Your task to perform on an android device: turn on showing notifications on the lock screen Image 0: 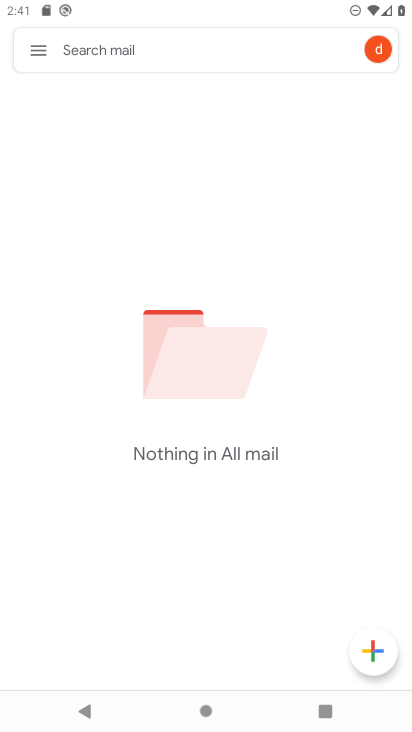
Step 0: press home button
Your task to perform on an android device: turn on showing notifications on the lock screen Image 1: 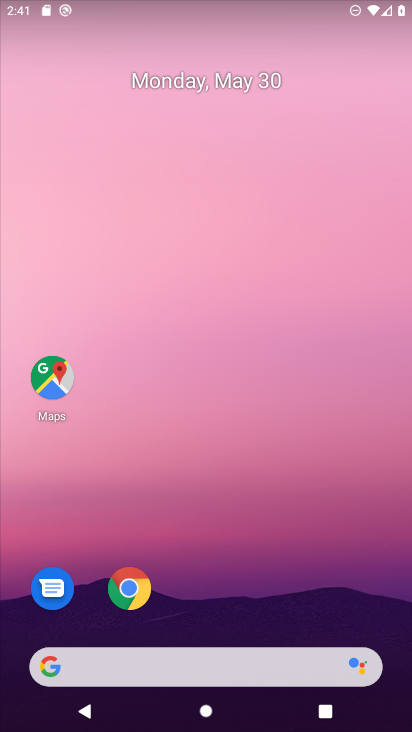
Step 1: drag from (211, 612) to (242, 244)
Your task to perform on an android device: turn on showing notifications on the lock screen Image 2: 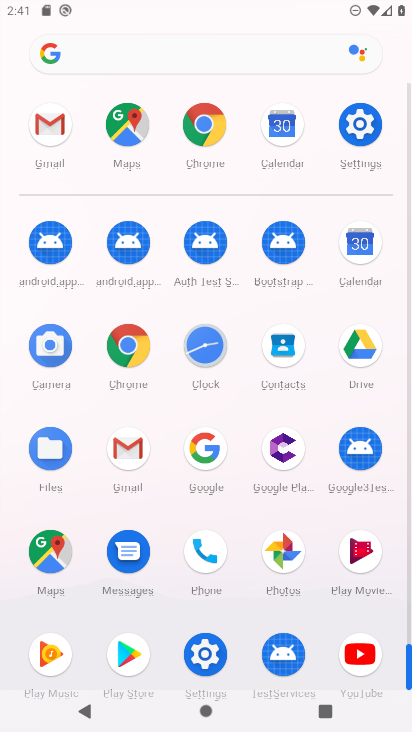
Step 2: click (360, 106)
Your task to perform on an android device: turn on showing notifications on the lock screen Image 3: 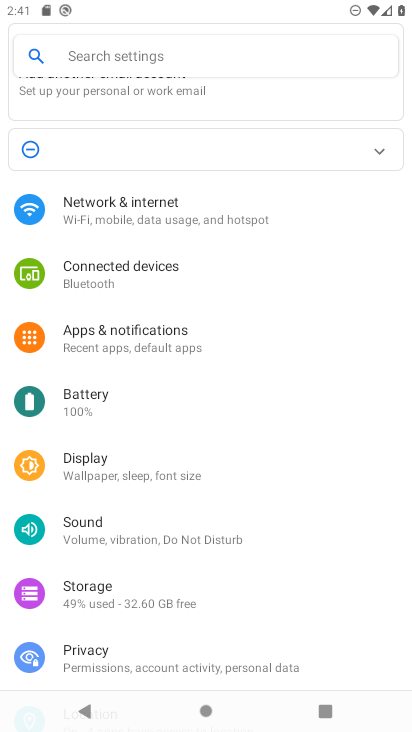
Step 3: click (89, 202)
Your task to perform on an android device: turn on showing notifications on the lock screen Image 4: 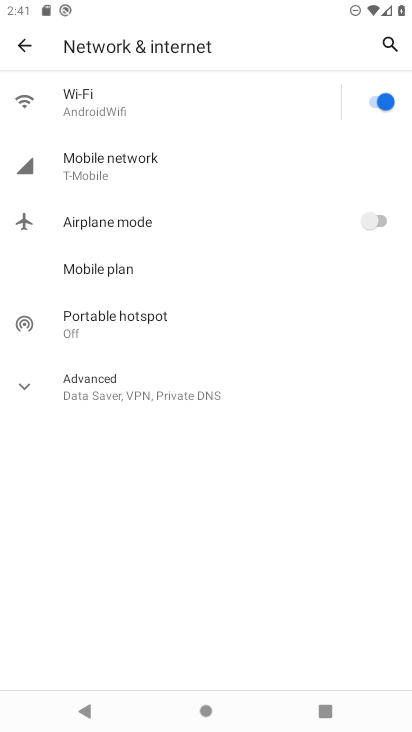
Step 4: click (39, 28)
Your task to perform on an android device: turn on showing notifications on the lock screen Image 5: 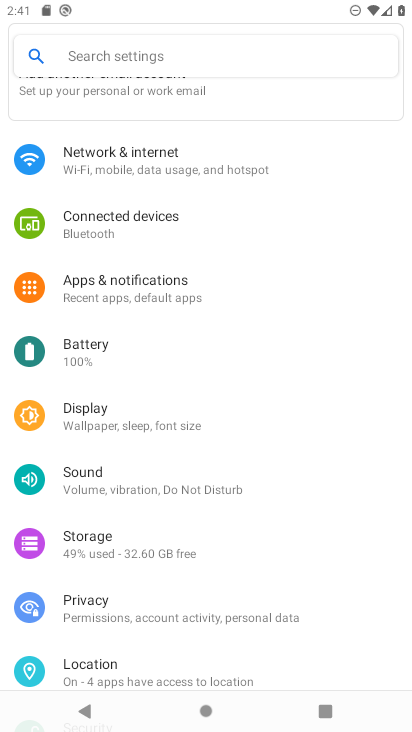
Step 5: click (140, 305)
Your task to perform on an android device: turn on showing notifications on the lock screen Image 6: 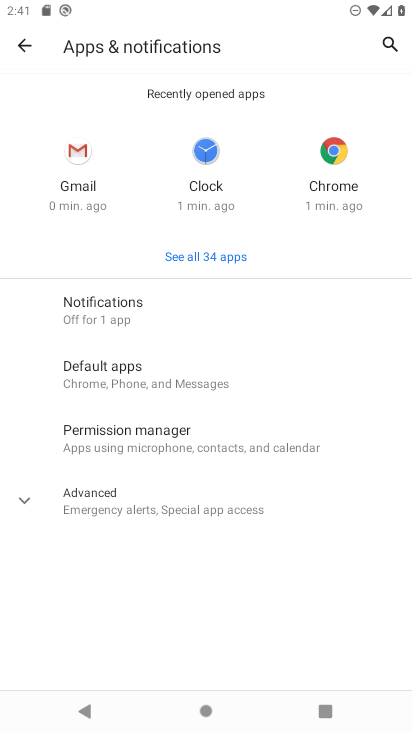
Step 6: click (104, 322)
Your task to perform on an android device: turn on showing notifications on the lock screen Image 7: 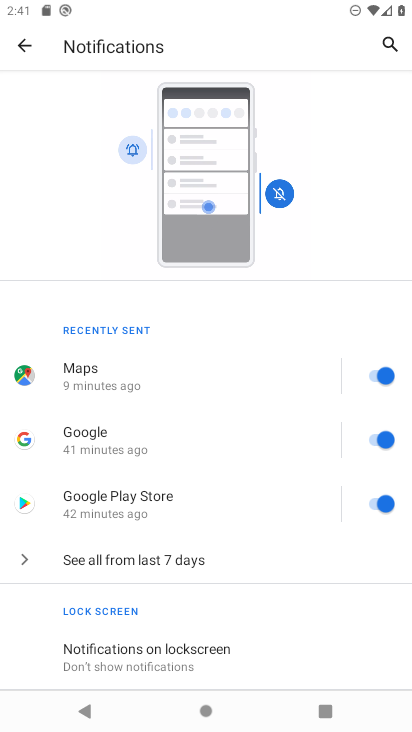
Step 7: click (122, 649)
Your task to perform on an android device: turn on showing notifications on the lock screen Image 8: 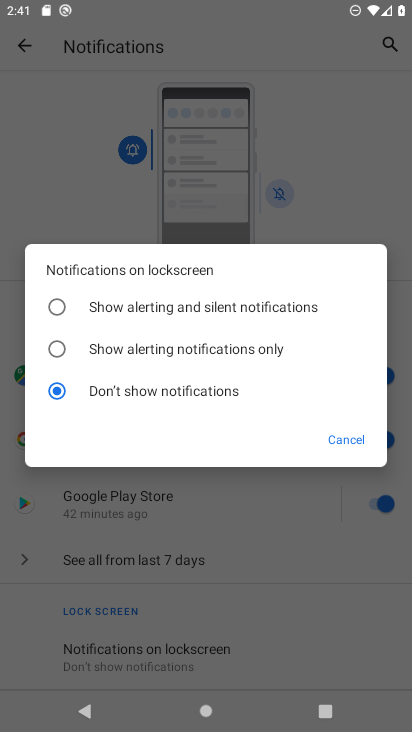
Step 8: click (101, 305)
Your task to perform on an android device: turn on showing notifications on the lock screen Image 9: 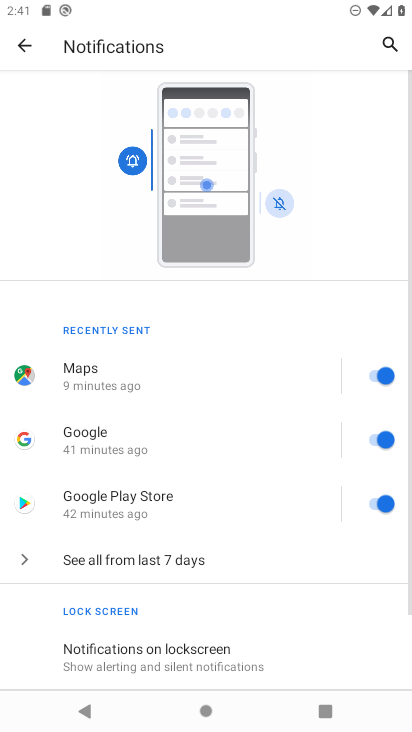
Step 9: task complete